Your task to perform on an android device: What's on my calendar tomorrow? Image 0: 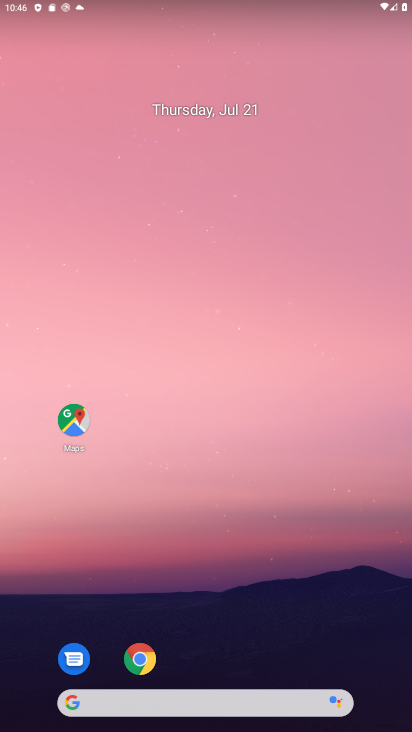
Step 0: drag from (192, 664) to (182, 89)
Your task to perform on an android device: What's on my calendar tomorrow? Image 1: 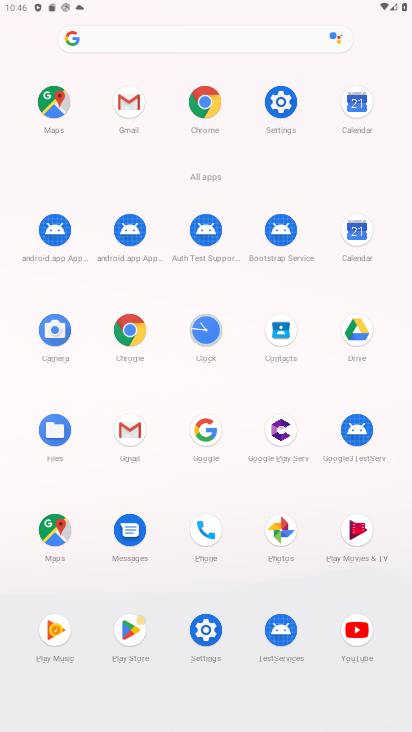
Step 1: click (339, 120)
Your task to perform on an android device: What's on my calendar tomorrow? Image 2: 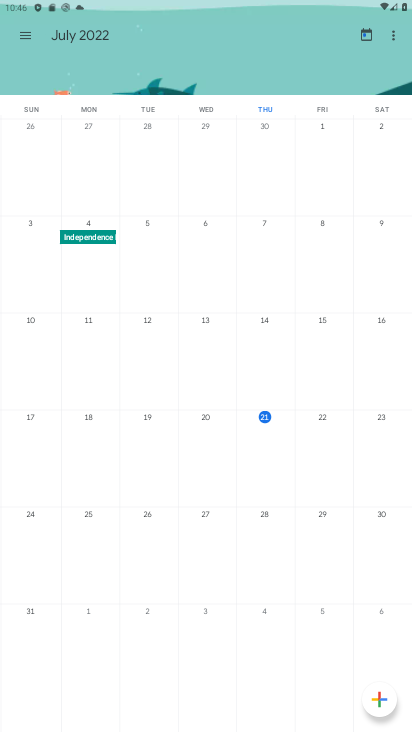
Step 2: task complete